Your task to perform on an android device: Check the settings for the Google Photos app Image 0: 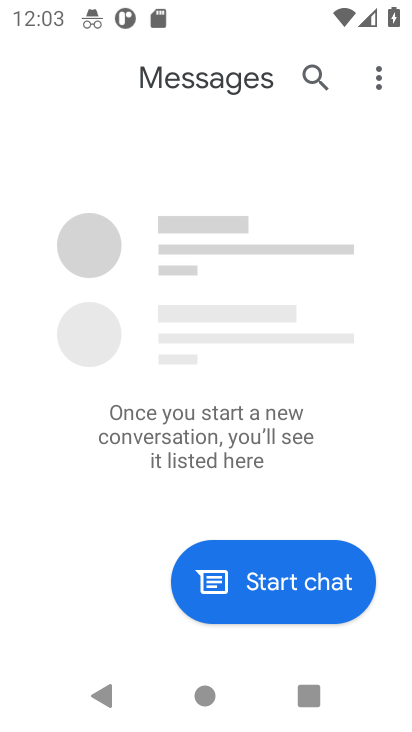
Step 0: press home button
Your task to perform on an android device: Check the settings for the Google Photos app Image 1: 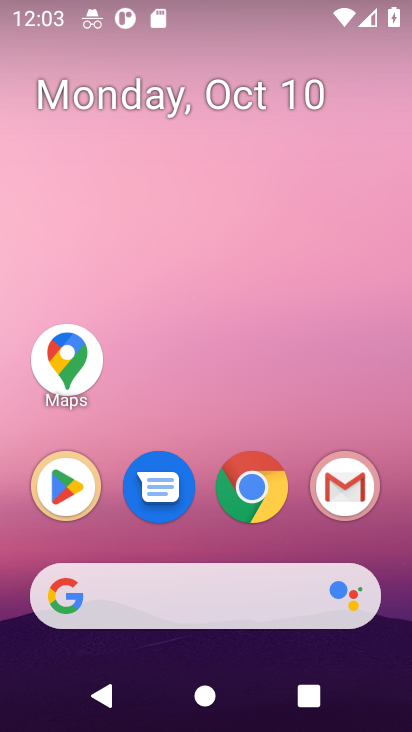
Step 1: drag from (229, 647) to (235, 130)
Your task to perform on an android device: Check the settings for the Google Photos app Image 2: 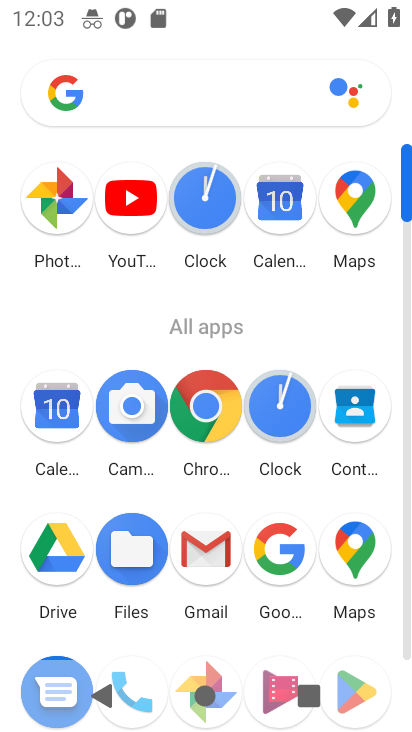
Step 2: drag from (251, 598) to (249, 248)
Your task to perform on an android device: Check the settings for the Google Photos app Image 3: 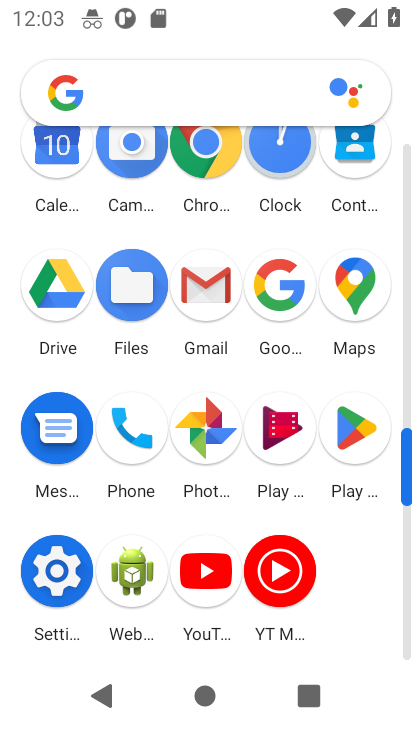
Step 3: click (211, 429)
Your task to perform on an android device: Check the settings for the Google Photos app Image 4: 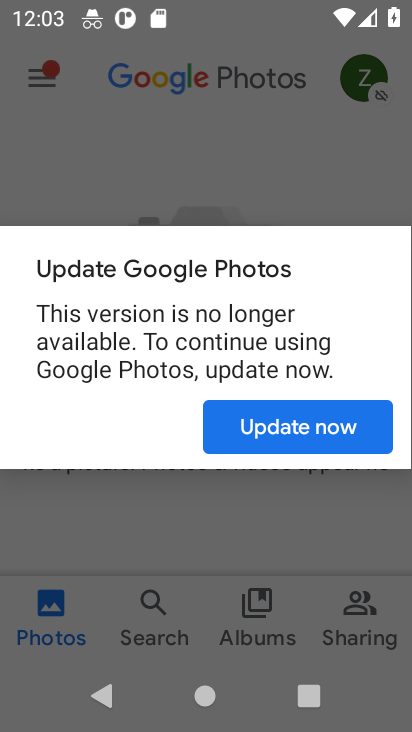
Step 4: click (320, 431)
Your task to perform on an android device: Check the settings for the Google Photos app Image 5: 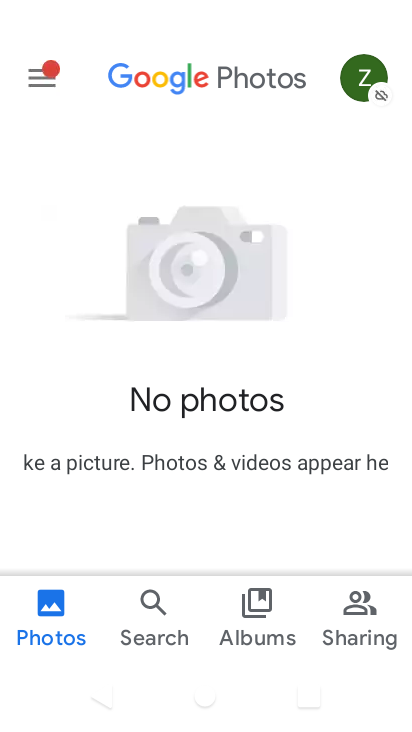
Step 5: click (45, 81)
Your task to perform on an android device: Check the settings for the Google Photos app Image 6: 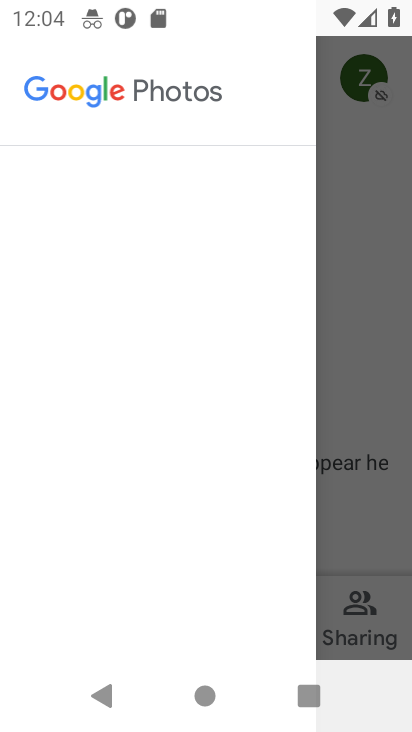
Step 6: click (348, 408)
Your task to perform on an android device: Check the settings for the Google Photos app Image 7: 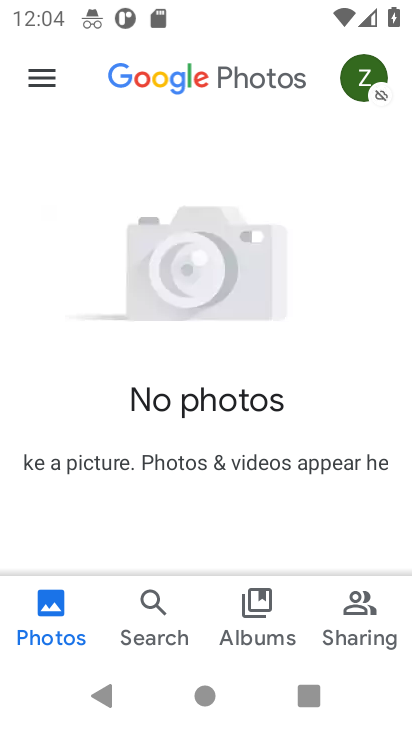
Step 7: click (48, 74)
Your task to perform on an android device: Check the settings for the Google Photos app Image 8: 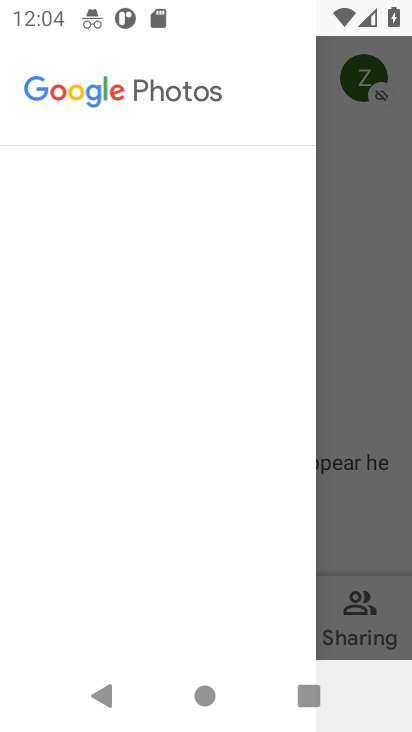
Step 8: click (176, 85)
Your task to perform on an android device: Check the settings for the Google Photos app Image 9: 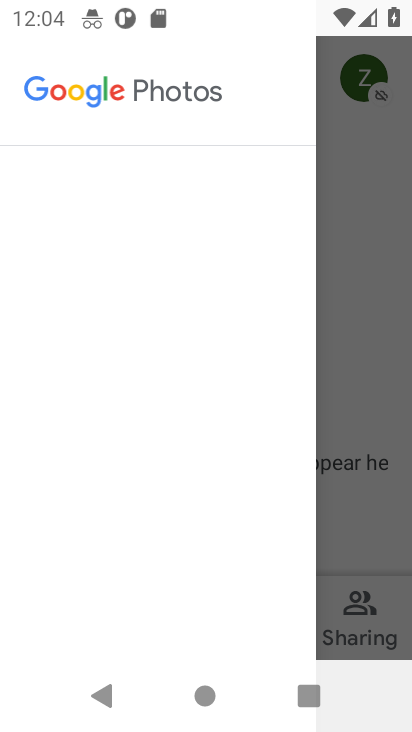
Step 9: click (332, 377)
Your task to perform on an android device: Check the settings for the Google Photos app Image 10: 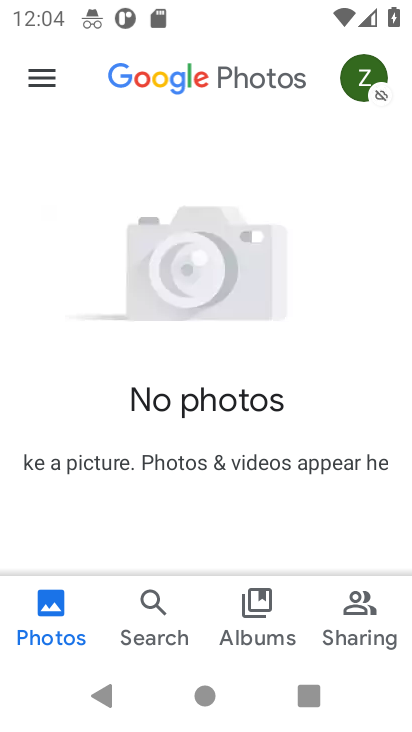
Step 10: click (361, 71)
Your task to perform on an android device: Check the settings for the Google Photos app Image 11: 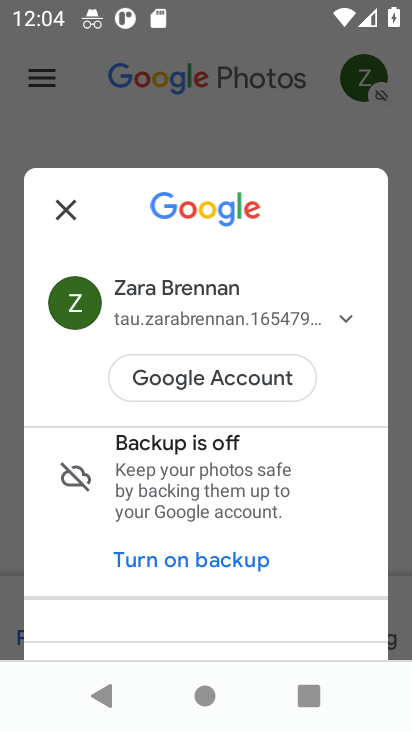
Step 11: drag from (265, 513) to (274, 194)
Your task to perform on an android device: Check the settings for the Google Photos app Image 12: 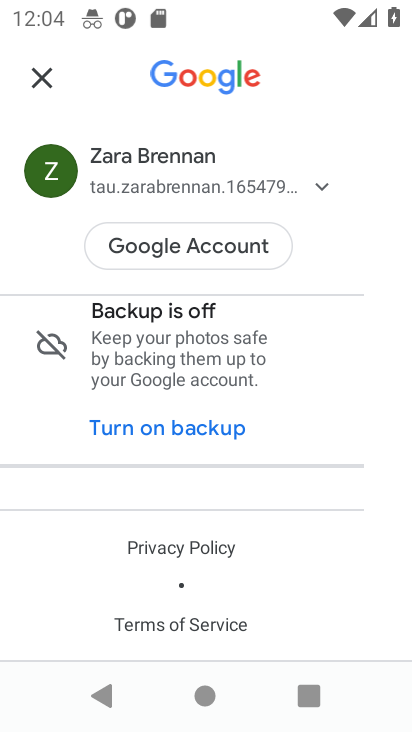
Step 12: drag from (221, 456) to (241, 199)
Your task to perform on an android device: Check the settings for the Google Photos app Image 13: 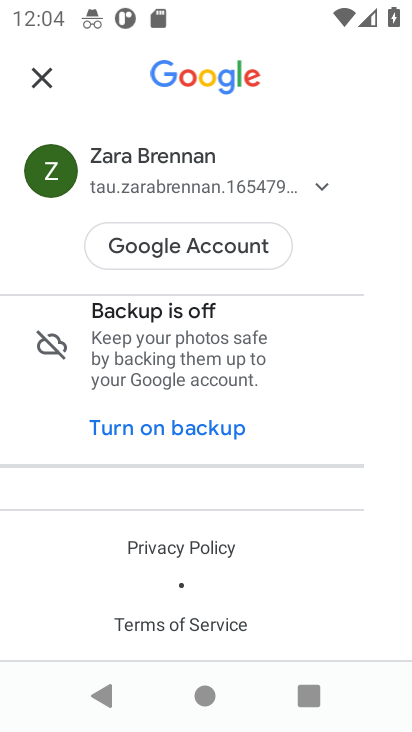
Step 13: click (38, 84)
Your task to perform on an android device: Check the settings for the Google Photos app Image 14: 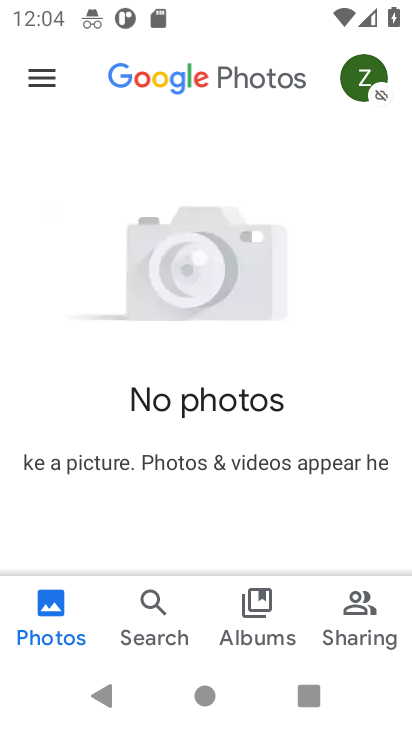
Step 14: click (46, 75)
Your task to perform on an android device: Check the settings for the Google Photos app Image 15: 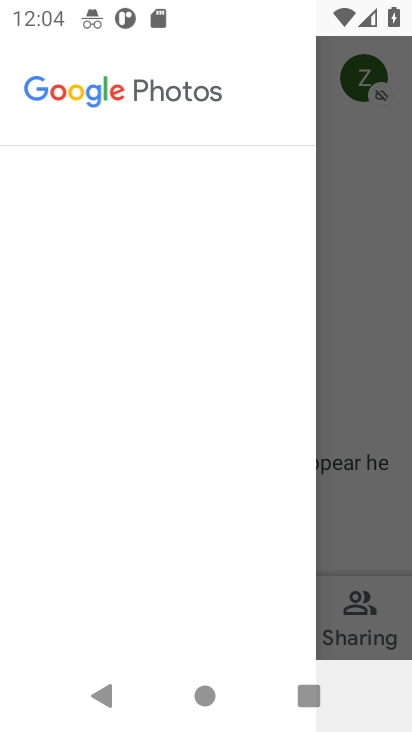
Step 15: press home button
Your task to perform on an android device: Check the settings for the Google Photos app Image 16: 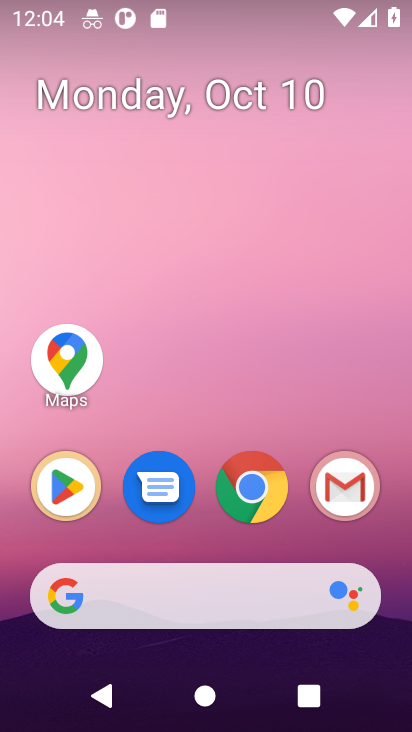
Step 16: drag from (252, 702) to (242, 109)
Your task to perform on an android device: Check the settings for the Google Photos app Image 17: 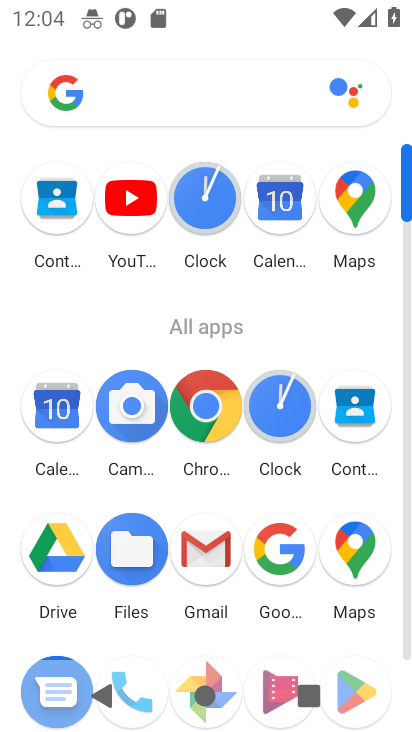
Step 17: drag from (161, 640) to (237, 15)
Your task to perform on an android device: Check the settings for the Google Photos app Image 18: 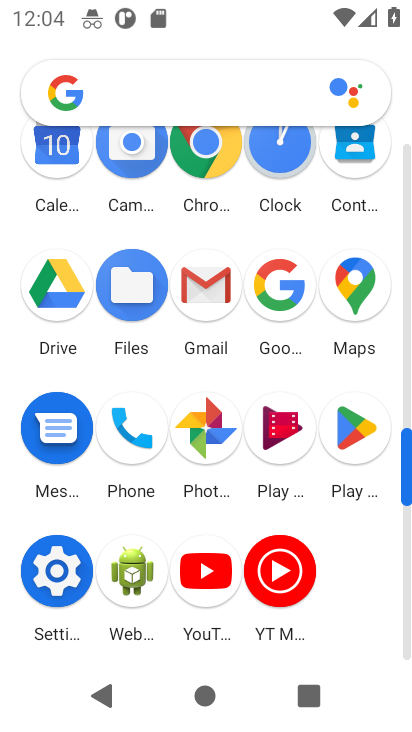
Step 18: click (59, 580)
Your task to perform on an android device: Check the settings for the Google Photos app Image 19: 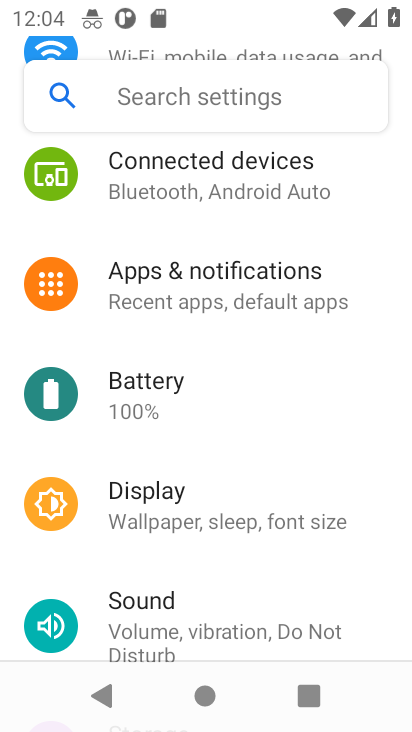
Step 19: drag from (248, 359) to (232, 67)
Your task to perform on an android device: Check the settings for the Google Photos app Image 20: 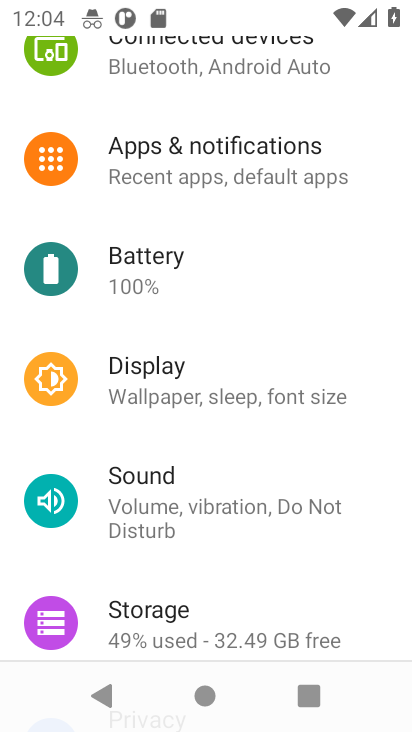
Step 20: drag from (198, 609) to (224, 526)
Your task to perform on an android device: Check the settings for the Google Photos app Image 21: 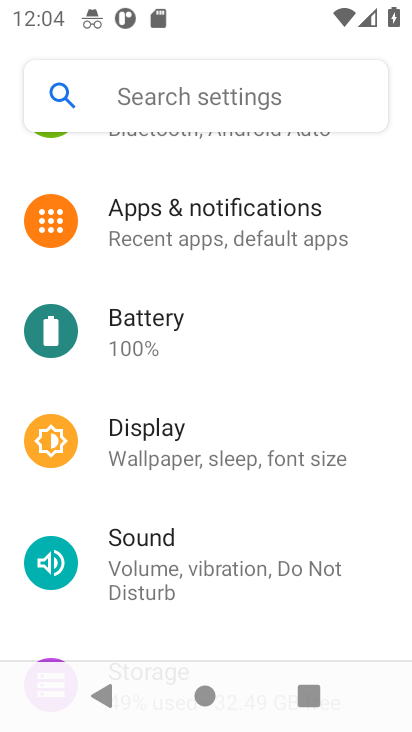
Step 21: click (225, 247)
Your task to perform on an android device: Check the settings for the Google Photos app Image 22: 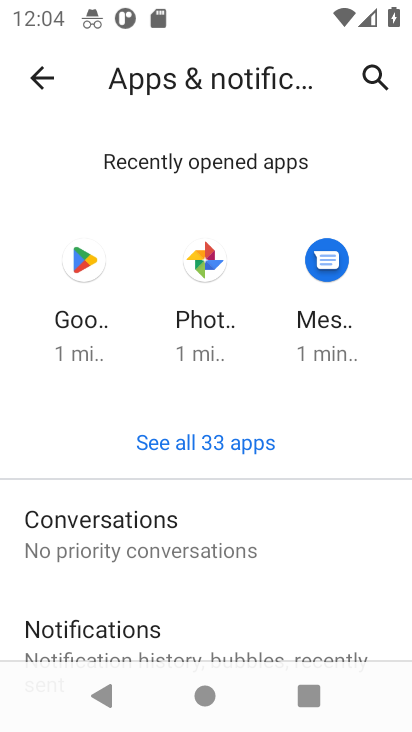
Step 22: click (194, 268)
Your task to perform on an android device: Check the settings for the Google Photos app Image 23: 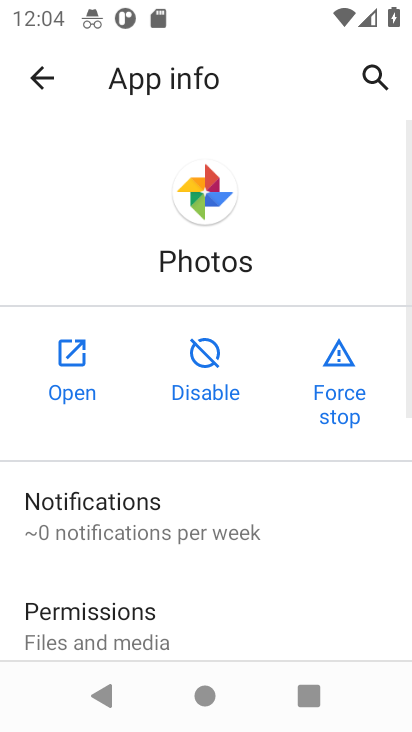
Step 23: drag from (191, 590) to (184, 241)
Your task to perform on an android device: Check the settings for the Google Photos app Image 24: 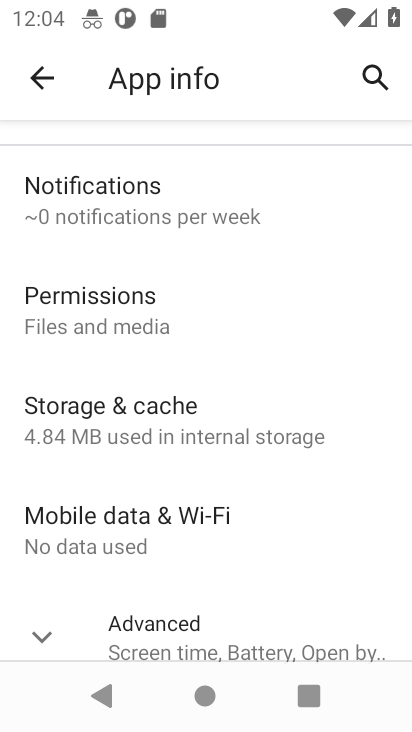
Step 24: drag from (200, 581) to (212, 333)
Your task to perform on an android device: Check the settings for the Google Photos app Image 25: 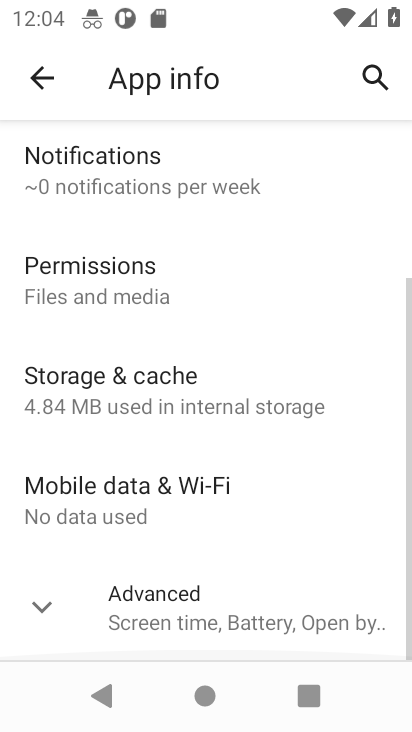
Step 25: click (142, 597)
Your task to perform on an android device: Check the settings for the Google Photos app Image 26: 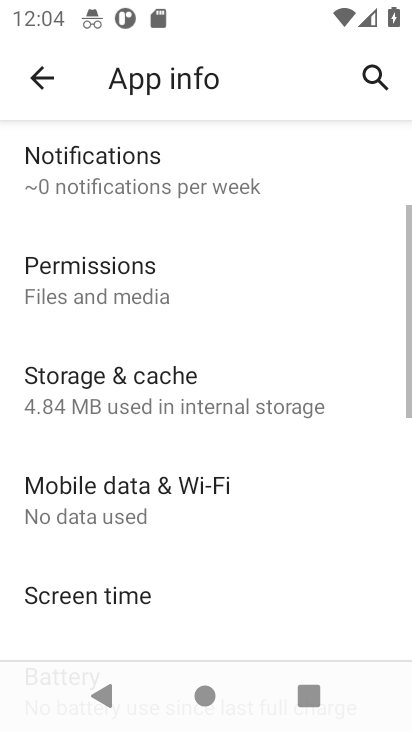
Step 26: task complete